Your task to perform on an android device: Open Chrome and go to the settings page Image 0: 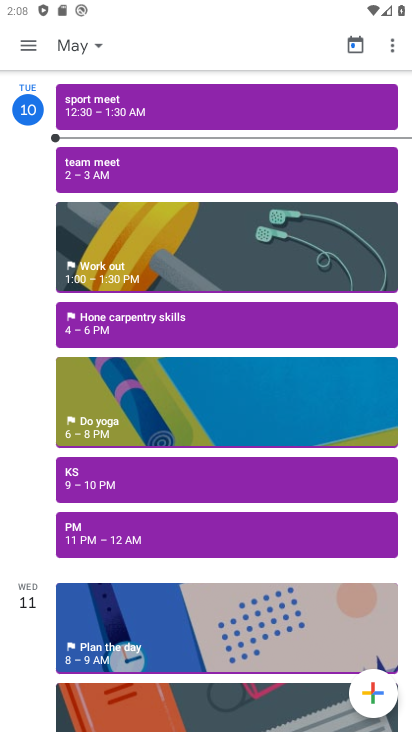
Step 0: press home button
Your task to perform on an android device: Open Chrome and go to the settings page Image 1: 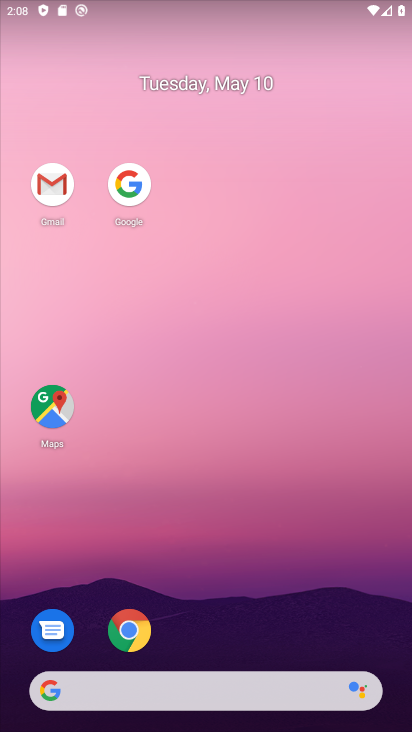
Step 1: click (139, 631)
Your task to perform on an android device: Open Chrome and go to the settings page Image 2: 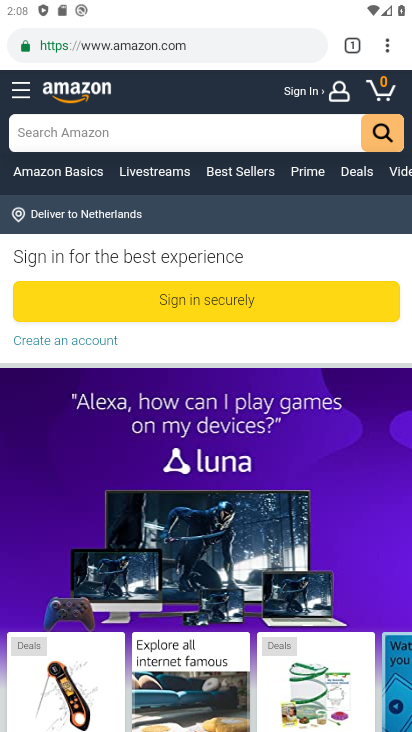
Step 2: click (388, 49)
Your task to perform on an android device: Open Chrome and go to the settings page Image 3: 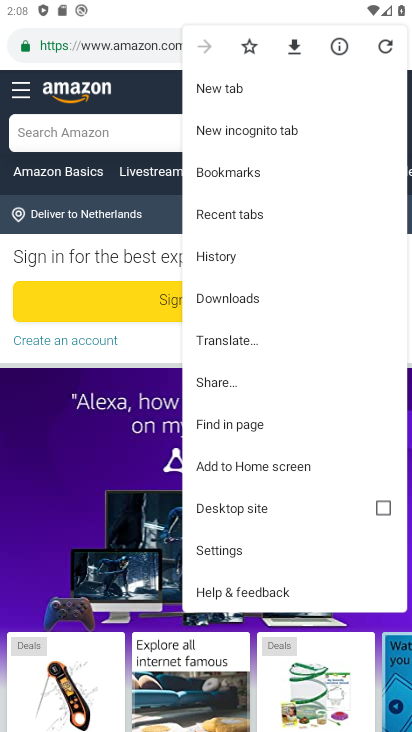
Step 3: click (247, 546)
Your task to perform on an android device: Open Chrome and go to the settings page Image 4: 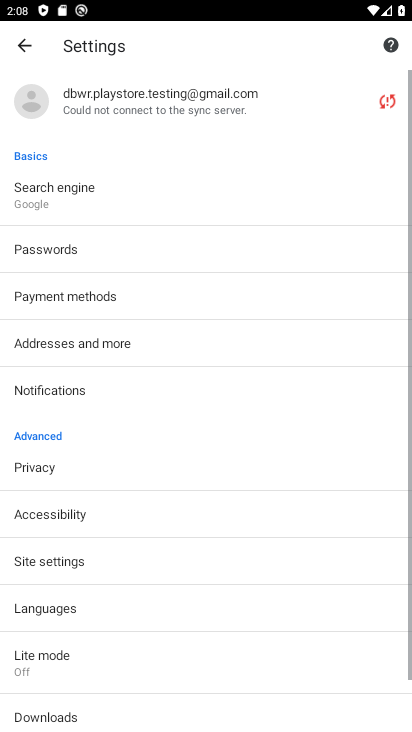
Step 4: task complete